Your task to perform on an android device: toggle sleep mode Image 0: 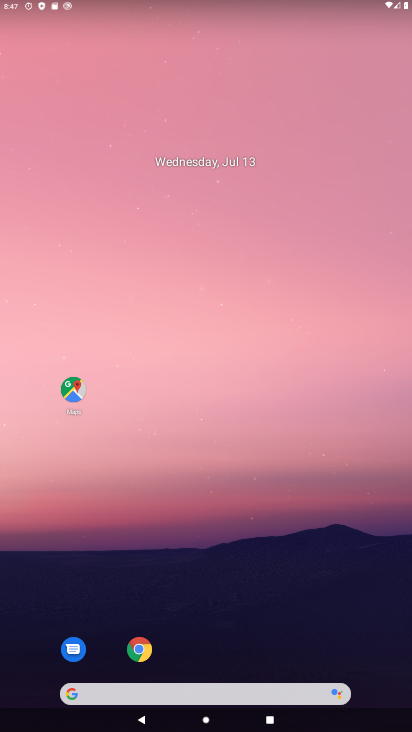
Step 0: drag from (252, 709) to (304, 167)
Your task to perform on an android device: toggle sleep mode Image 1: 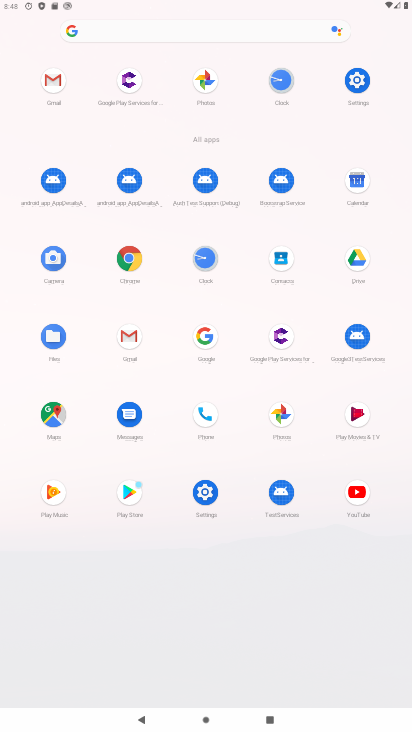
Step 1: click (360, 81)
Your task to perform on an android device: toggle sleep mode Image 2: 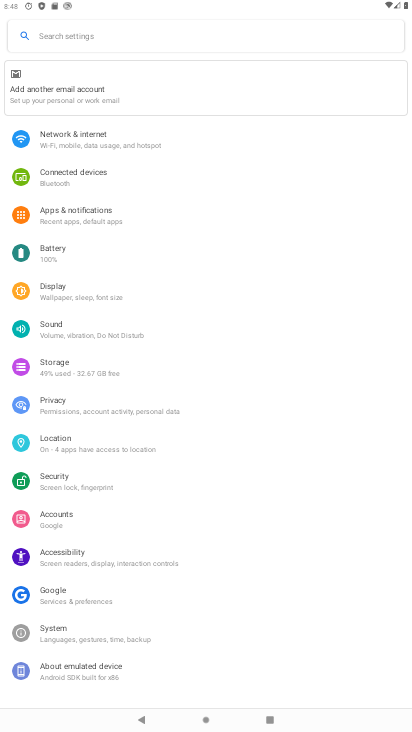
Step 2: click (109, 328)
Your task to perform on an android device: toggle sleep mode Image 3: 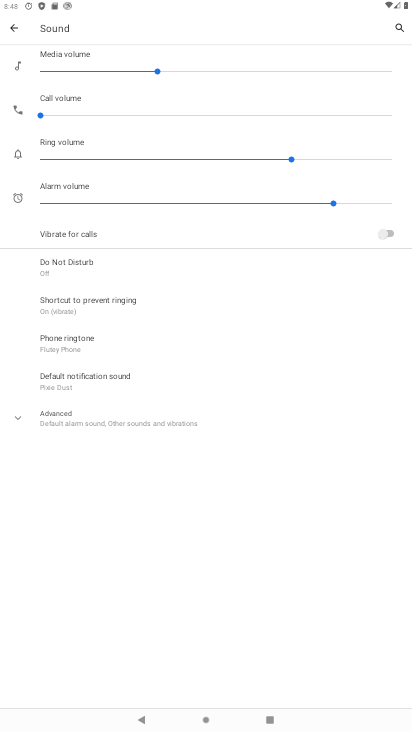
Step 3: task complete